Your task to perform on an android device: delete location history Image 0: 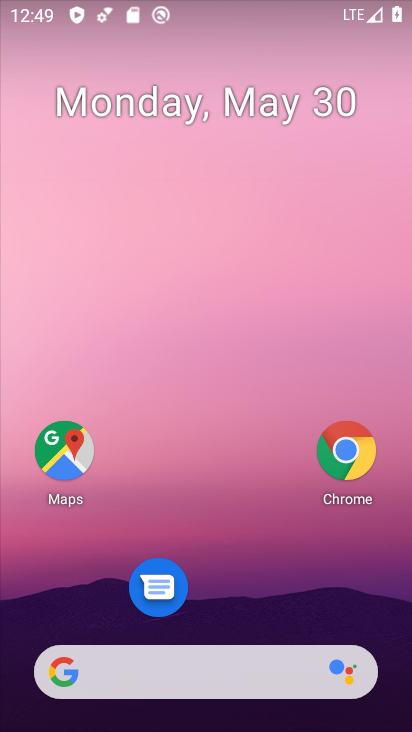
Step 0: drag from (252, 554) to (249, 36)
Your task to perform on an android device: delete location history Image 1: 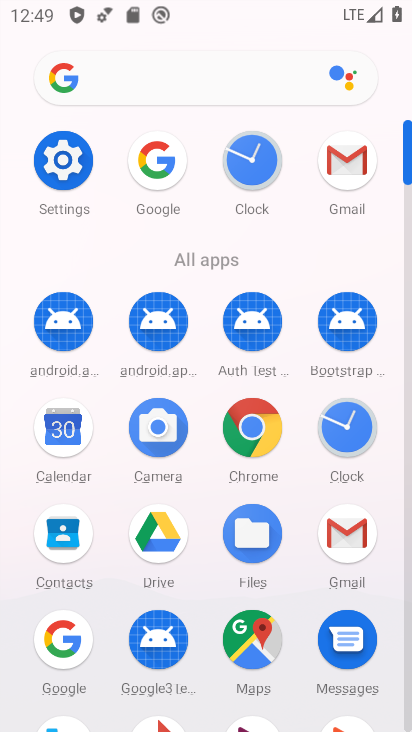
Step 1: click (53, 156)
Your task to perform on an android device: delete location history Image 2: 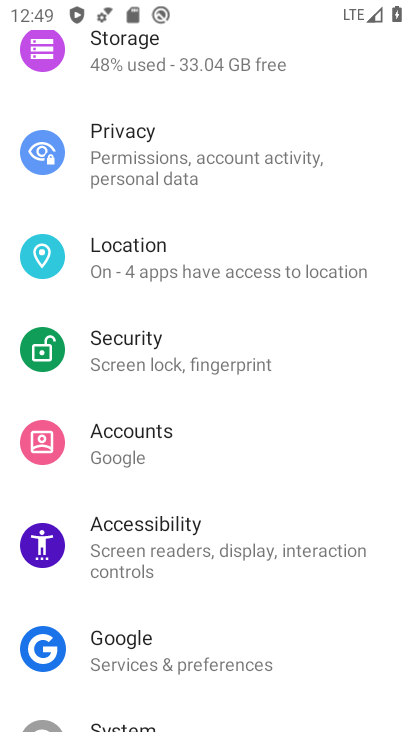
Step 2: click (176, 266)
Your task to perform on an android device: delete location history Image 3: 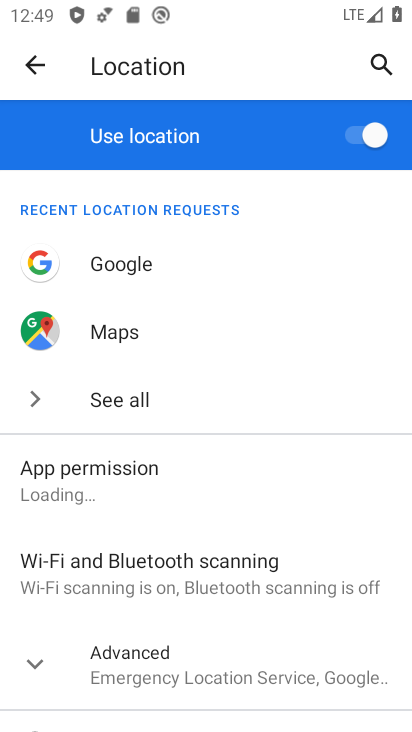
Step 3: click (127, 664)
Your task to perform on an android device: delete location history Image 4: 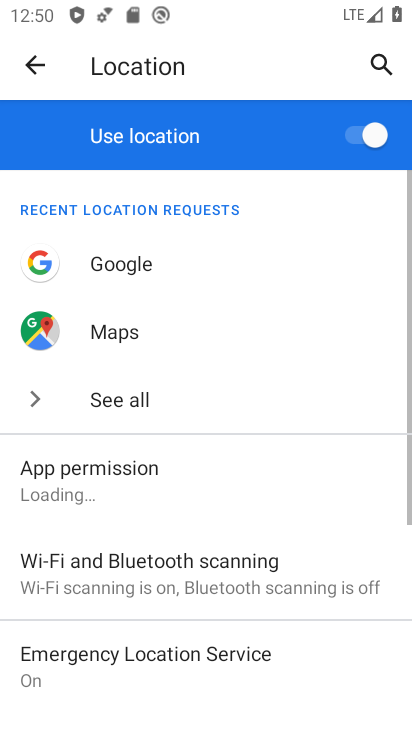
Step 4: drag from (282, 598) to (286, 105)
Your task to perform on an android device: delete location history Image 5: 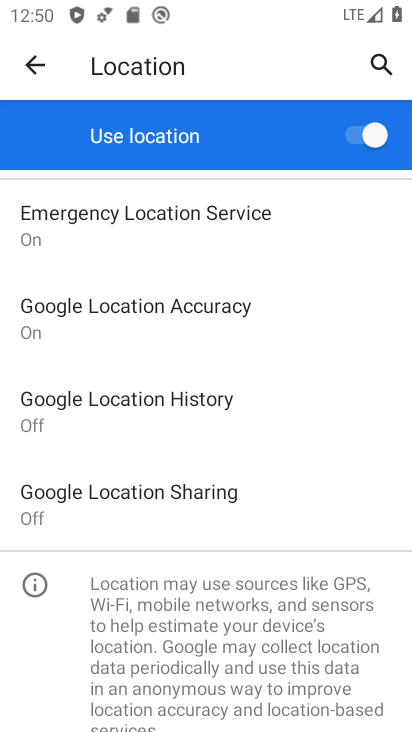
Step 5: click (94, 414)
Your task to perform on an android device: delete location history Image 6: 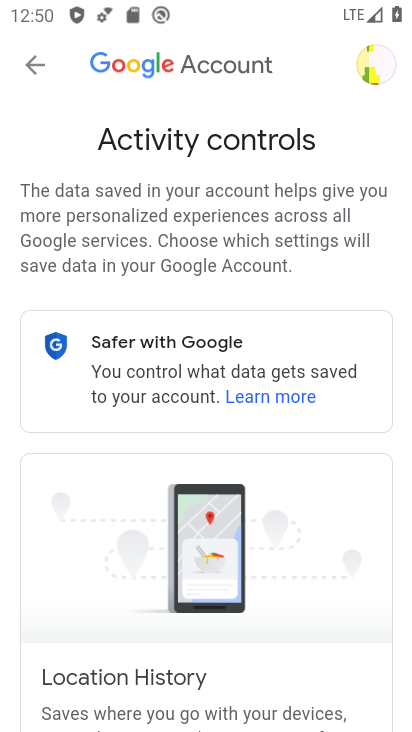
Step 6: drag from (227, 665) to (275, 127)
Your task to perform on an android device: delete location history Image 7: 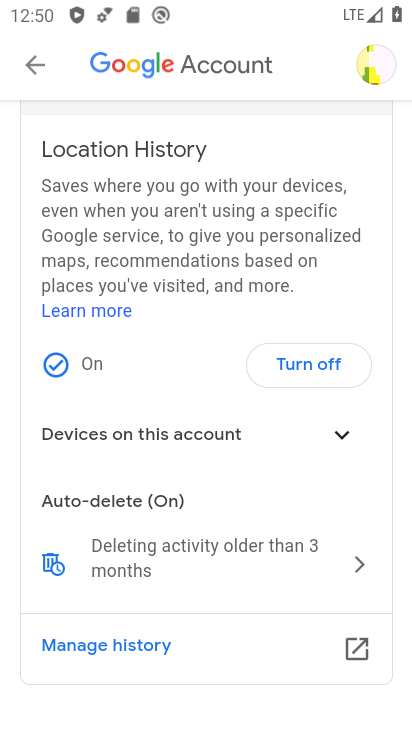
Step 7: click (50, 563)
Your task to perform on an android device: delete location history Image 8: 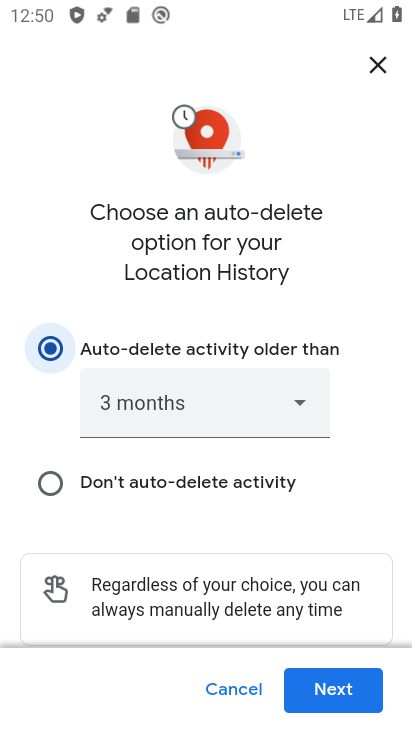
Step 8: click (329, 699)
Your task to perform on an android device: delete location history Image 9: 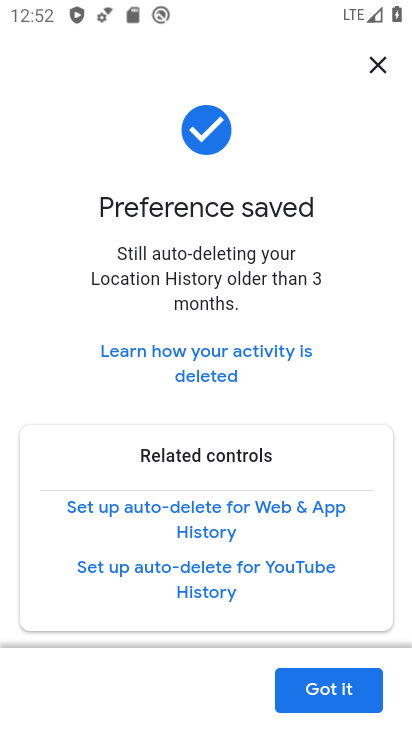
Step 9: task complete